Your task to perform on an android device: Open Wikipedia Image 0: 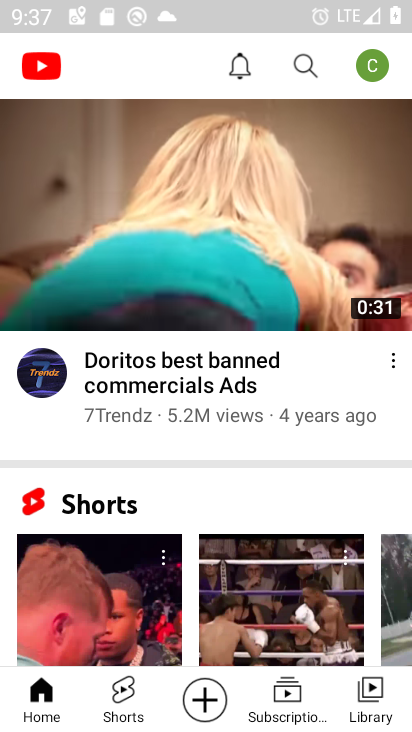
Step 0: press home button
Your task to perform on an android device: Open Wikipedia Image 1: 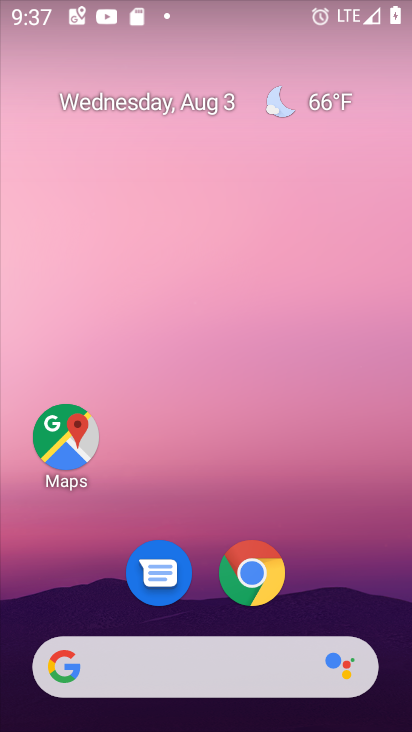
Step 1: click (253, 577)
Your task to perform on an android device: Open Wikipedia Image 2: 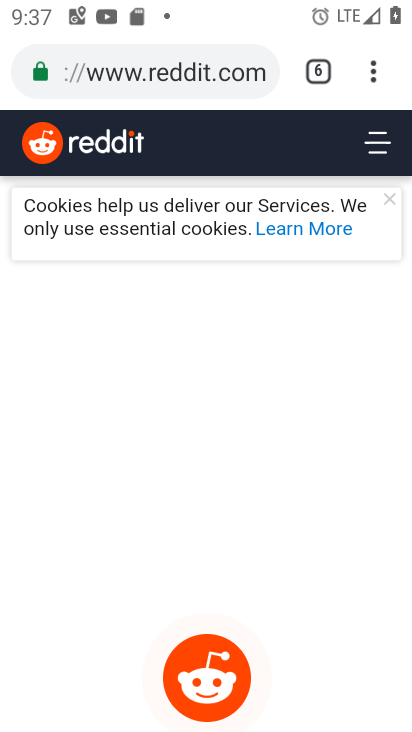
Step 2: click (192, 69)
Your task to perform on an android device: Open Wikipedia Image 3: 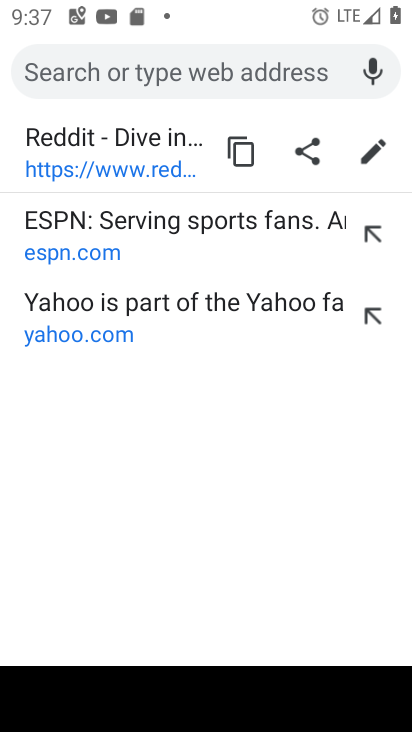
Step 3: type "wikipedia"
Your task to perform on an android device: Open Wikipedia Image 4: 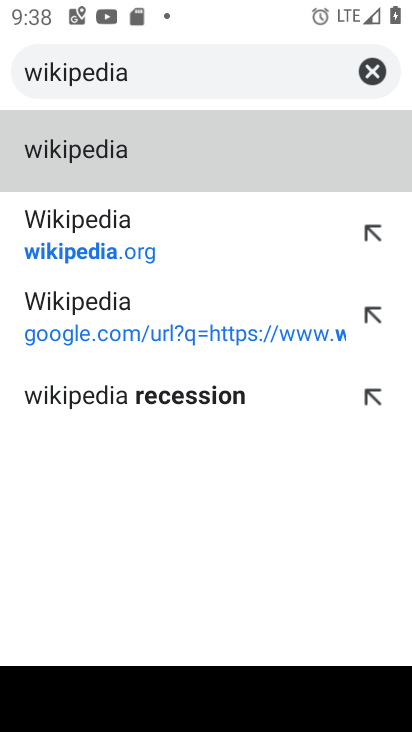
Step 4: click (47, 154)
Your task to perform on an android device: Open Wikipedia Image 5: 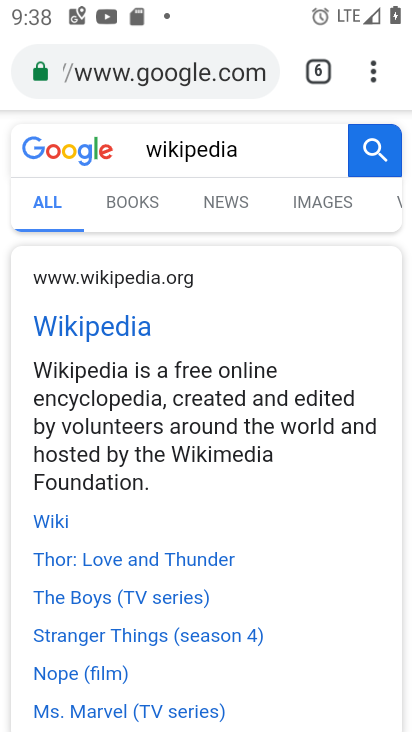
Step 5: click (90, 276)
Your task to perform on an android device: Open Wikipedia Image 6: 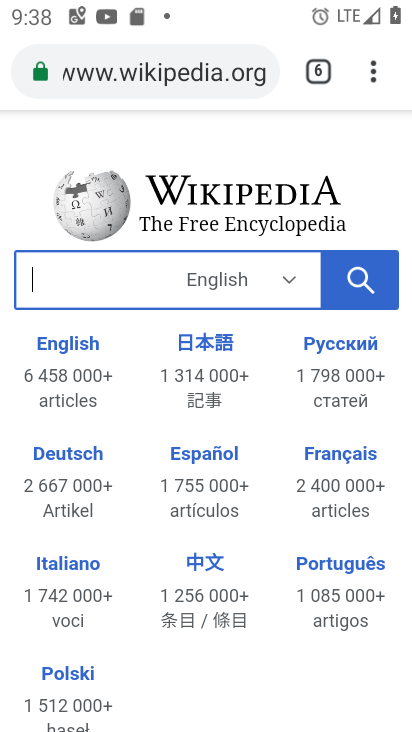
Step 6: task complete